Your task to perform on an android device: show emergency info Image 0: 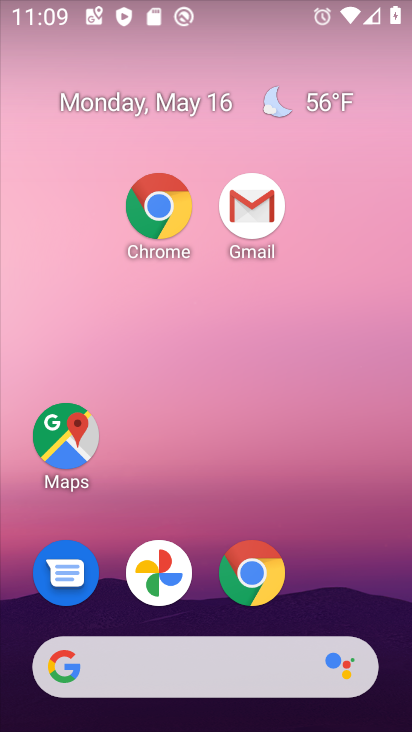
Step 0: drag from (322, 704) to (231, 53)
Your task to perform on an android device: show emergency info Image 1: 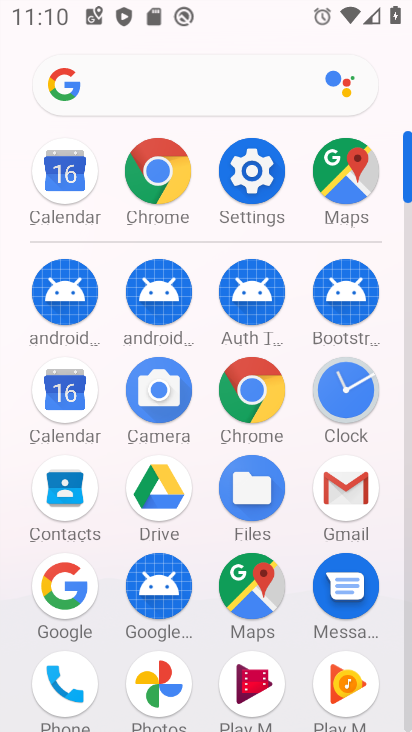
Step 1: click (230, 166)
Your task to perform on an android device: show emergency info Image 2: 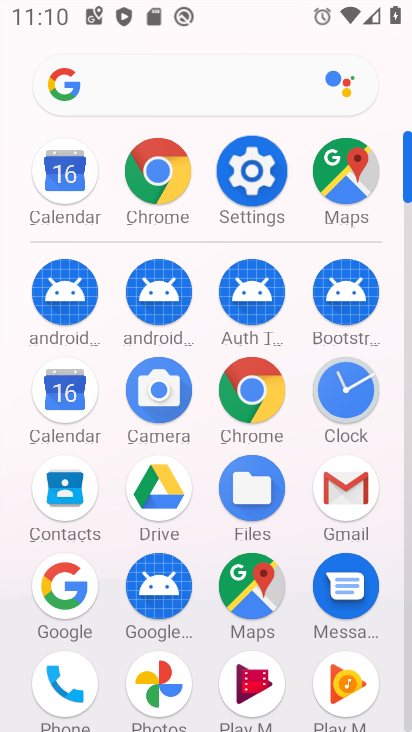
Step 2: click (231, 165)
Your task to perform on an android device: show emergency info Image 3: 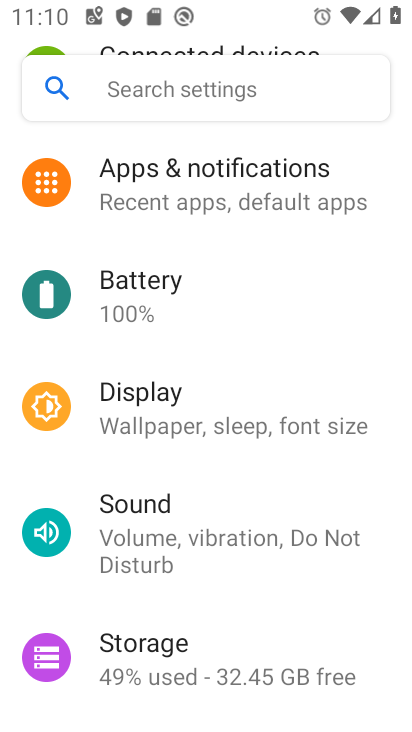
Step 3: drag from (148, 561) to (284, 1)
Your task to perform on an android device: show emergency info Image 4: 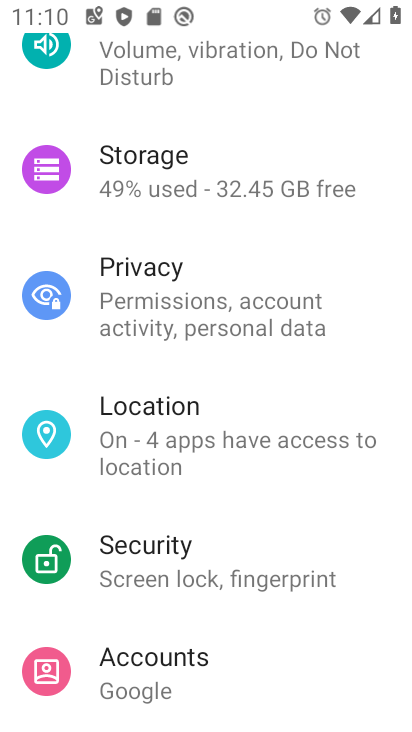
Step 4: drag from (235, 442) to (210, 25)
Your task to perform on an android device: show emergency info Image 5: 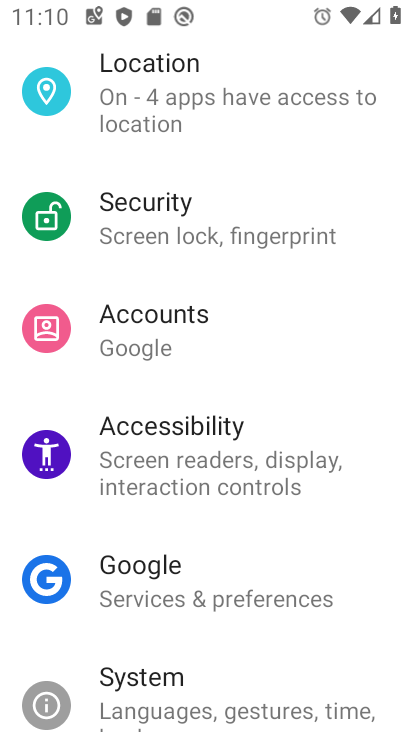
Step 5: drag from (234, 506) to (222, 0)
Your task to perform on an android device: show emergency info Image 6: 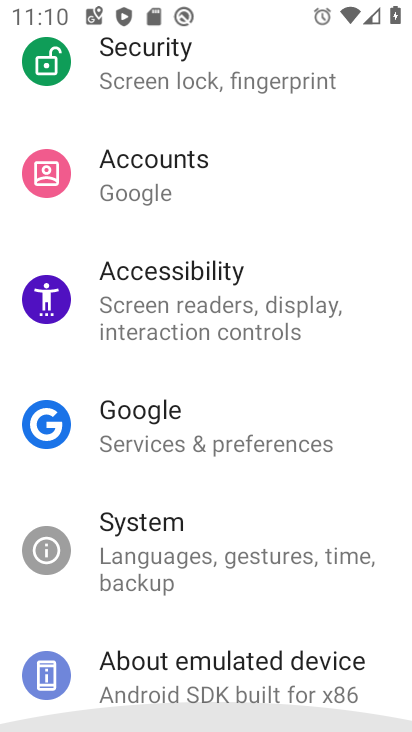
Step 6: drag from (241, 455) to (245, 5)
Your task to perform on an android device: show emergency info Image 7: 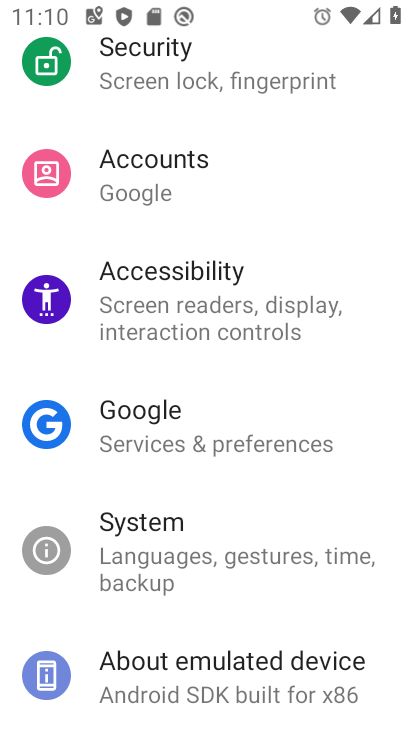
Step 7: click (209, 663)
Your task to perform on an android device: show emergency info Image 8: 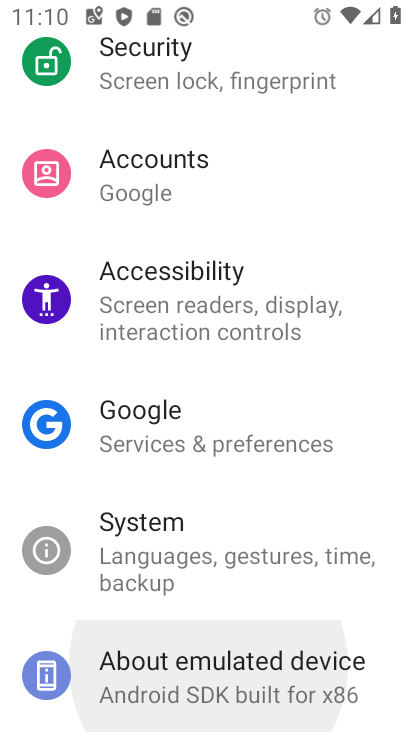
Step 8: click (212, 663)
Your task to perform on an android device: show emergency info Image 9: 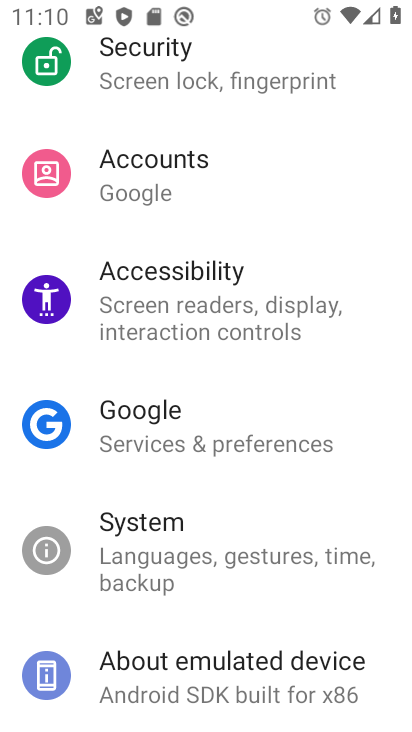
Step 9: click (213, 664)
Your task to perform on an android device: show emergency info Image 10: 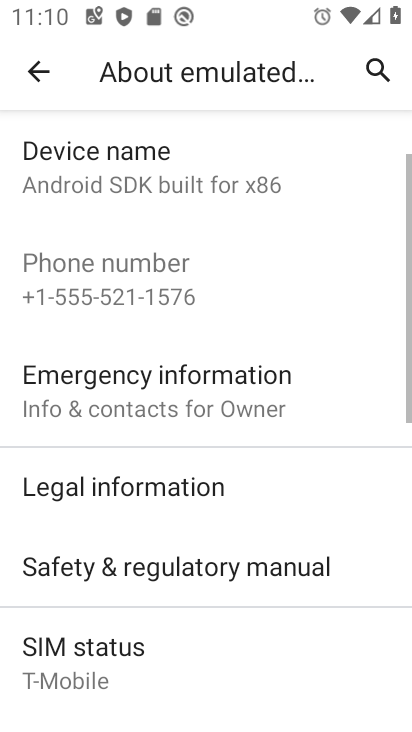
Step 10: task complete